Your task to perform on an android device: open a new tab in the chrome app Image 0: 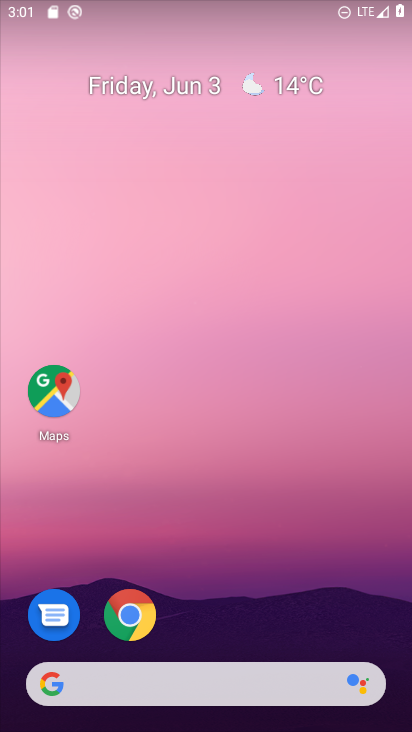
Step 0: drag from (241, 589) to (246, 235)
Your task to perform on an android device: open a new tab in the chrome app Image 1: 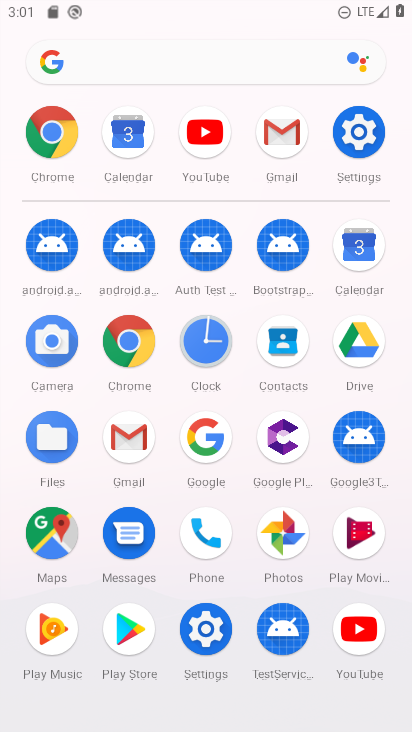
Step 1: click (142, 358)
Your task to perform on an android device: open a new tab in the chrome app Image 2: 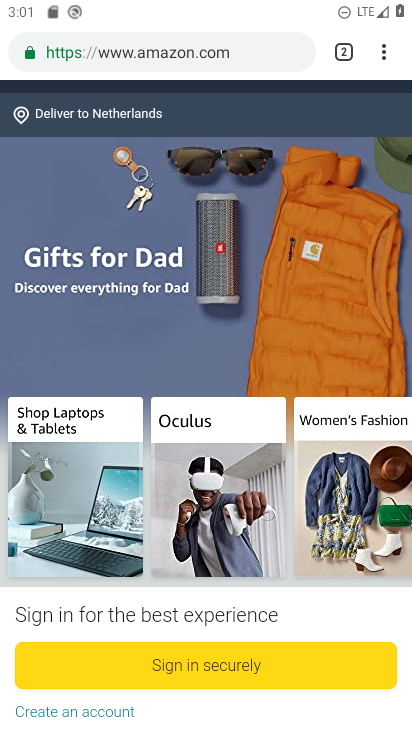
Step 2: task complete